Your task to perform on an android device: Go to Android settings Image 0: 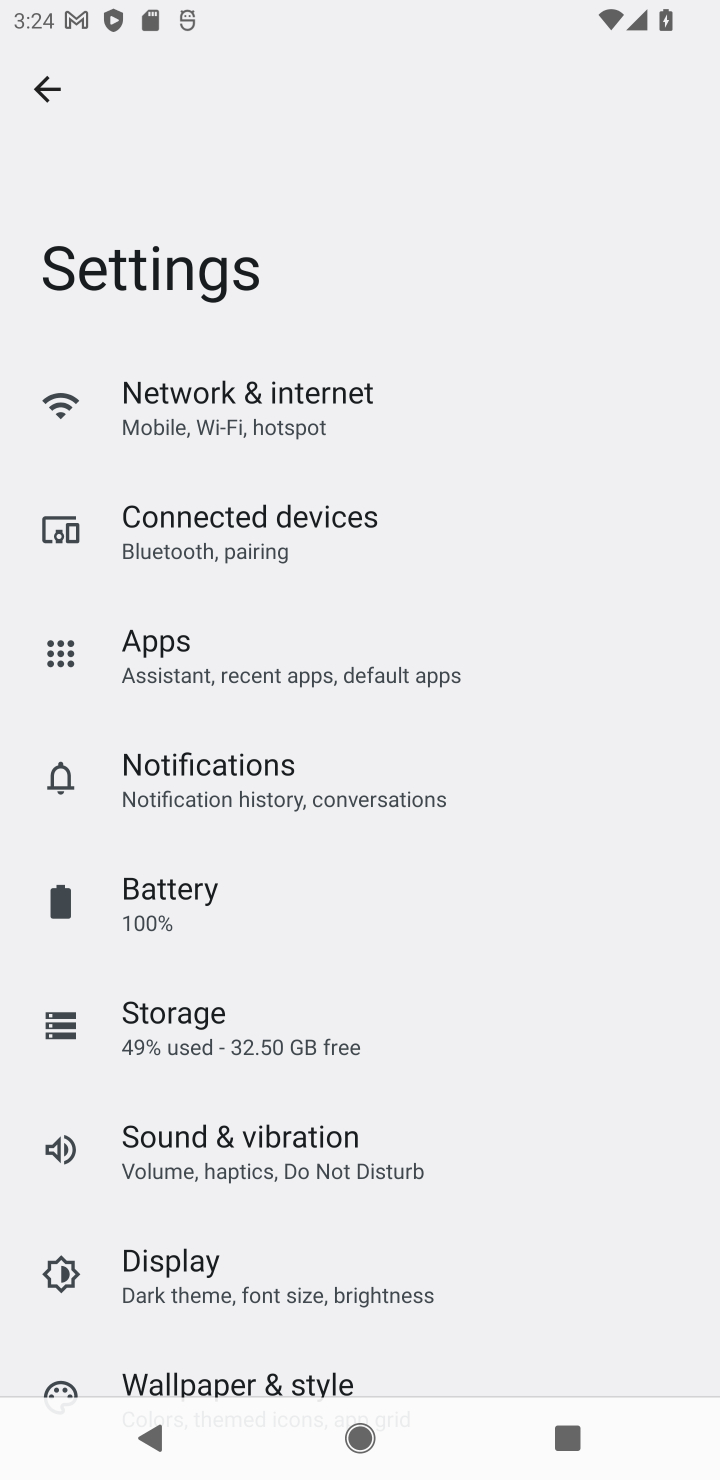
Step 0: press home button
Your task to perform on an android device: Go to Android settings Image 1: 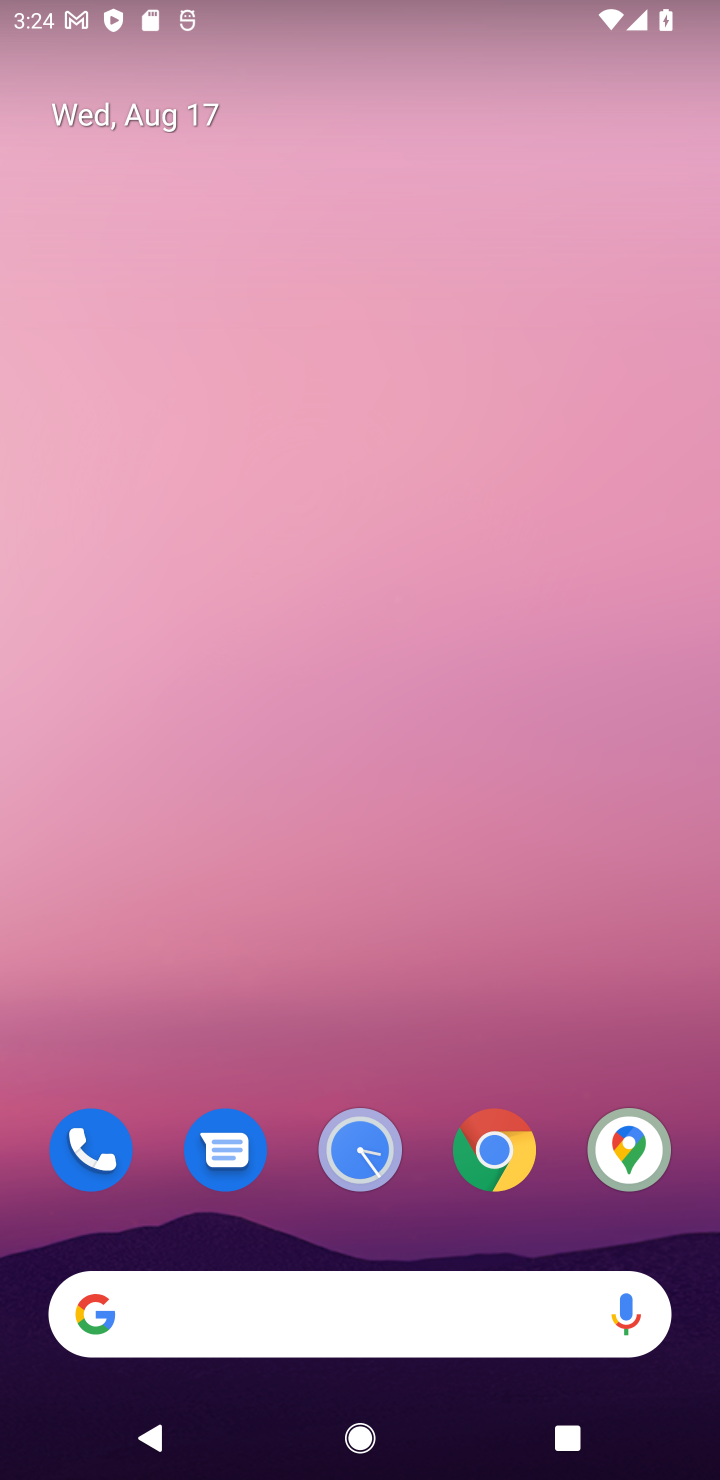
Step 1: drag from (611, 670) to (471, 6)
Your task to perform on an android device: Go to Android settings Image 2: 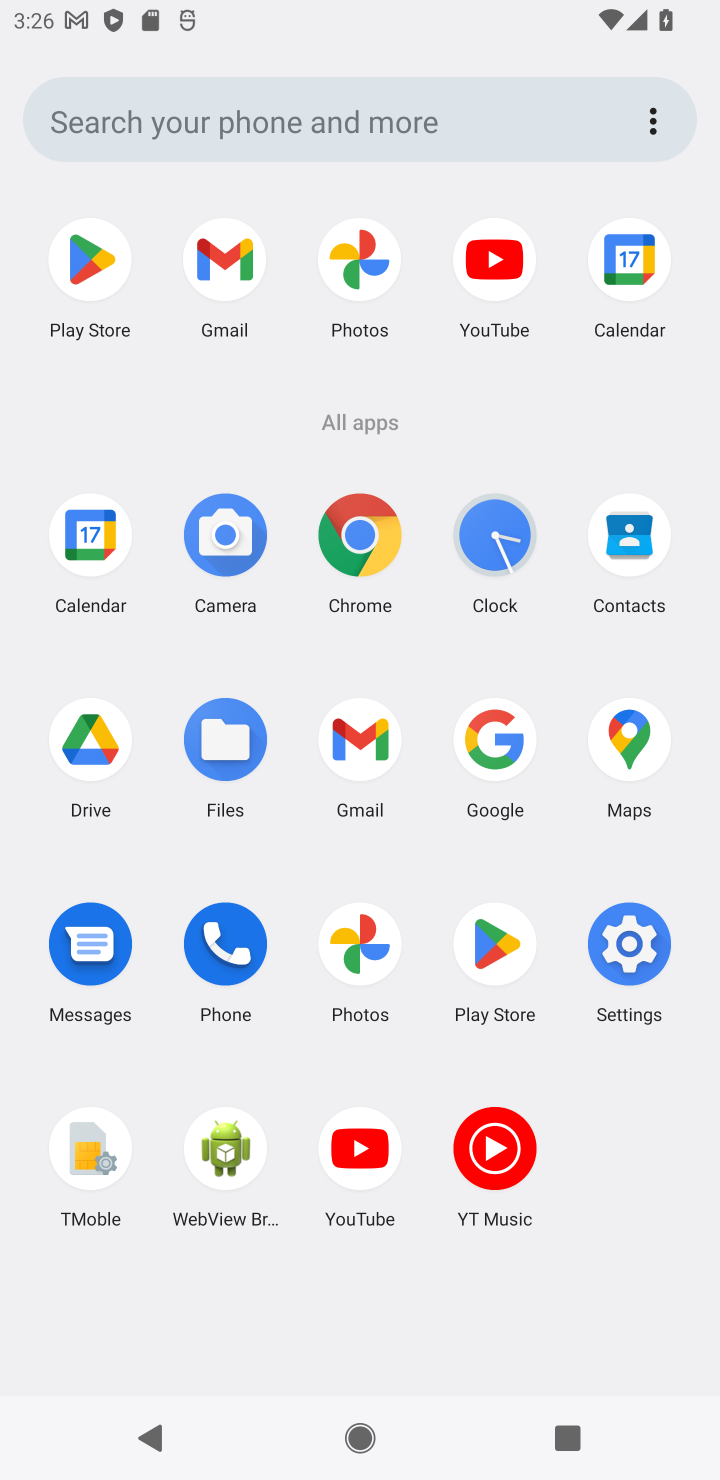
Step 2: click (621, 959)
Your task to perform on an android device: Go to Android settings Image 3: 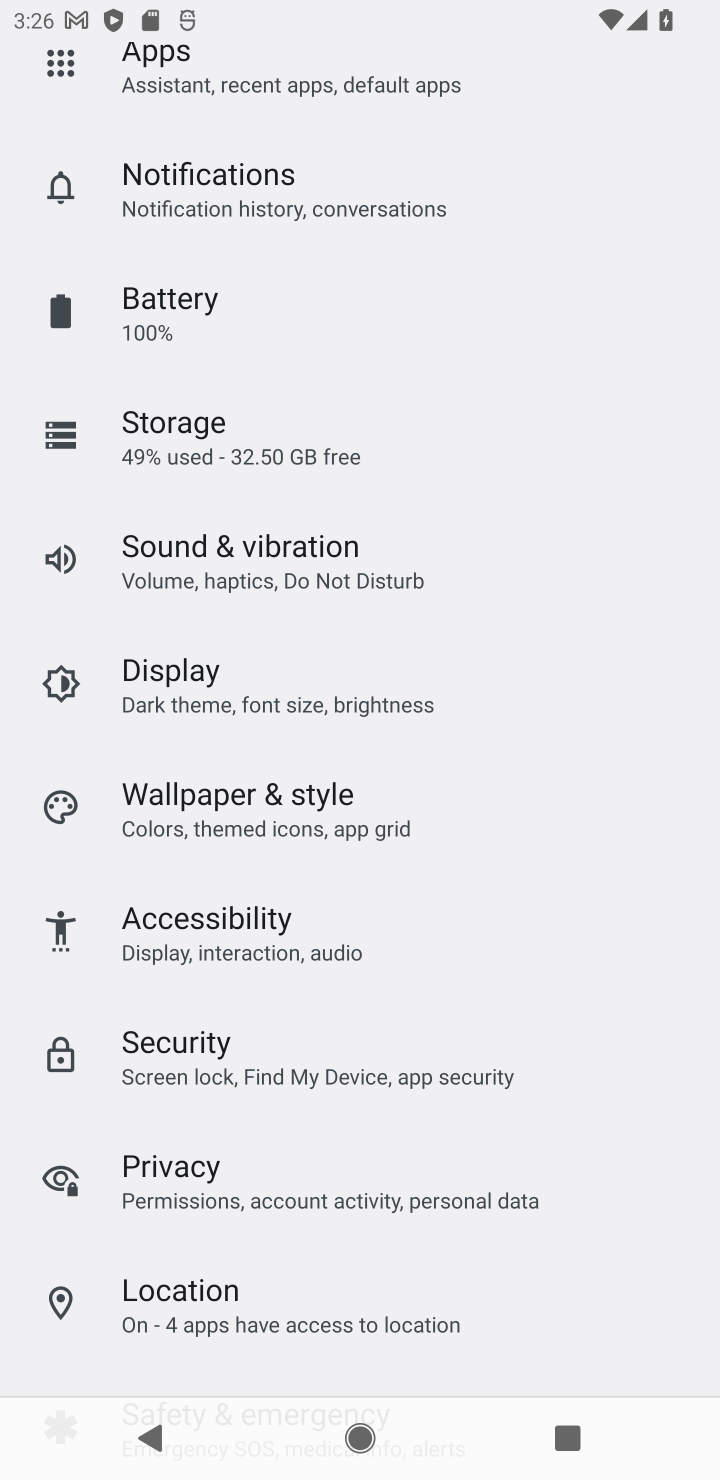
Step 3: task complete